Your task to perform on an android device: Go to Android settings Image 0: 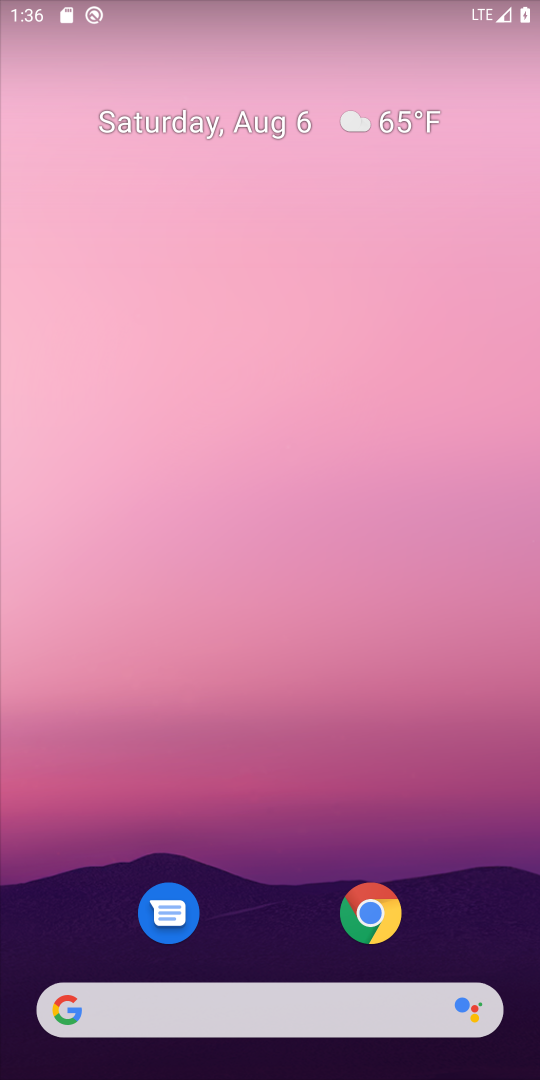
Step 0: press home button
Your task to perform on an android device: Go to Android settings Image 1: 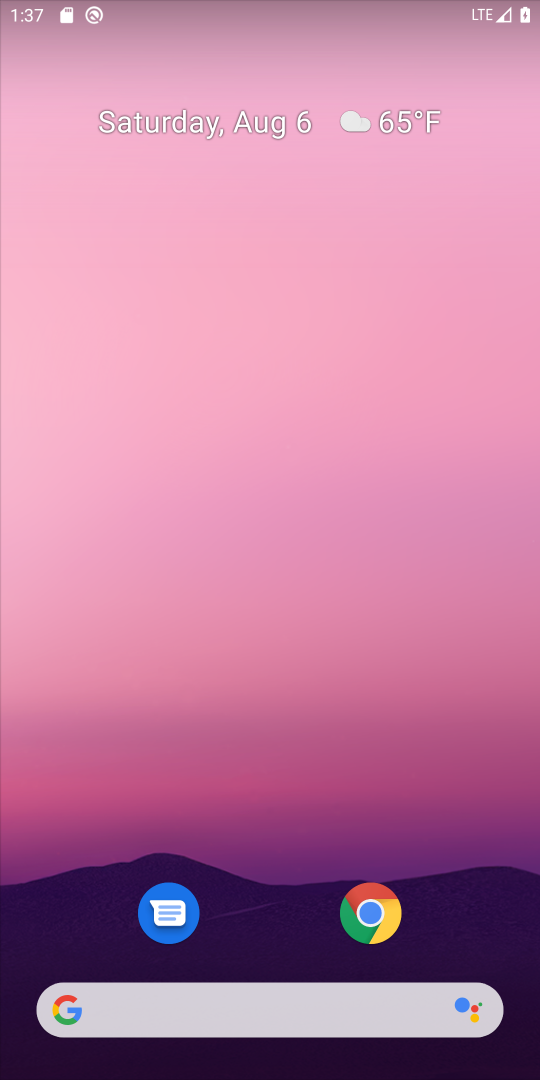
Step 1: drag from (275, 939) to (278, 219)
Your task to perform on an android device: Go to Android settings Image 2: 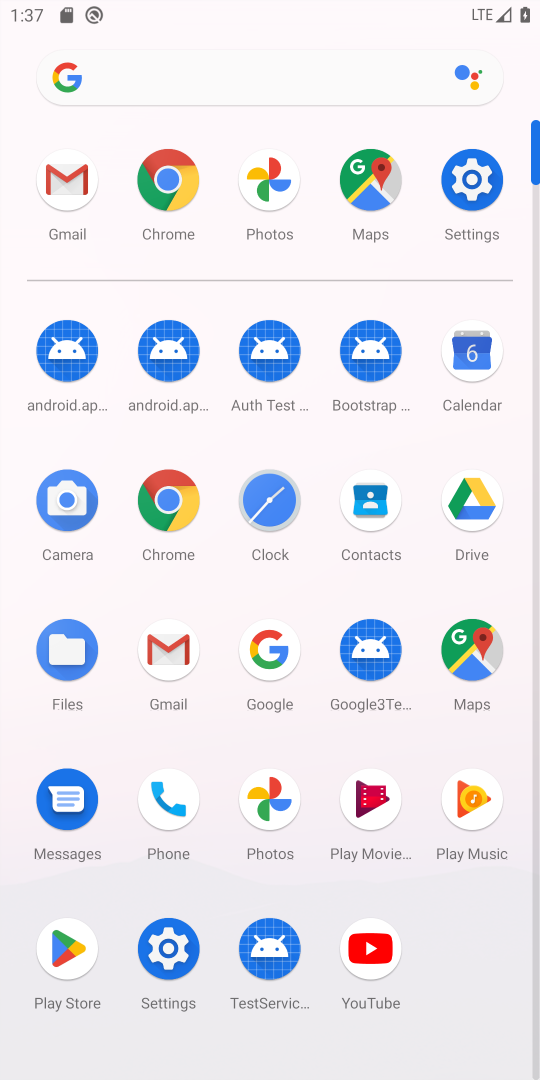
Step 2: click (469, 182)
Your task to perform on an android device: Go to Android settings Image 3: 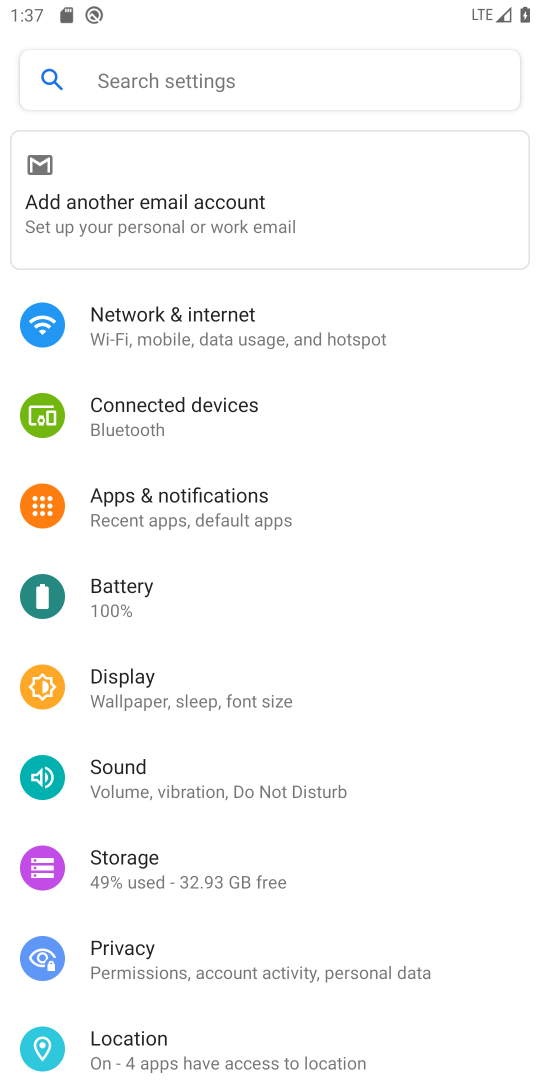
Step 3: drag from (417, 689) to (415, 516)
Your task to perform on an android device: Go to Android settings Image 4: 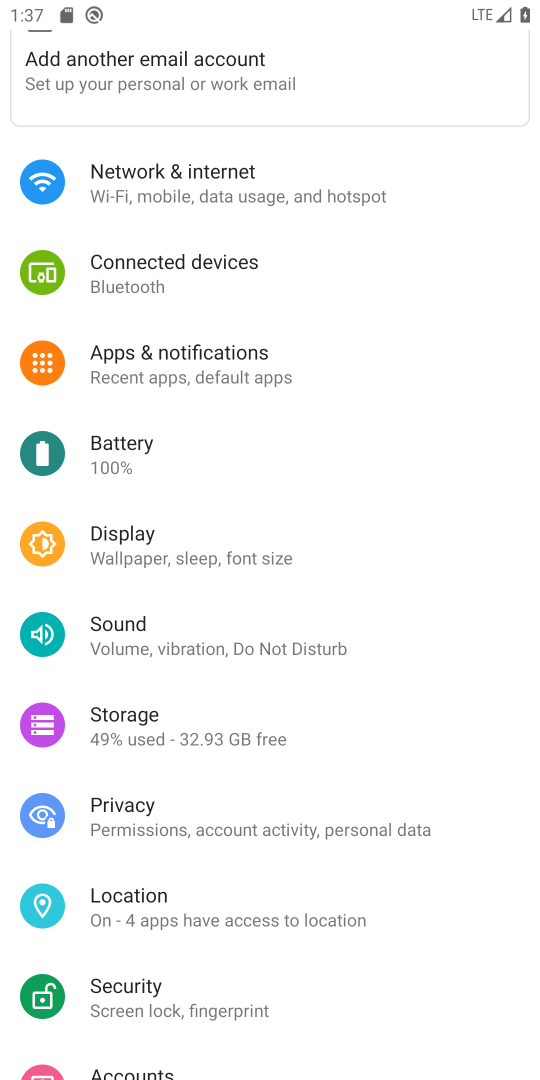
Step 4: drag from (423, 766) to (443, 617)
Your task to perform on an android device: Go to Android settings Image 5: 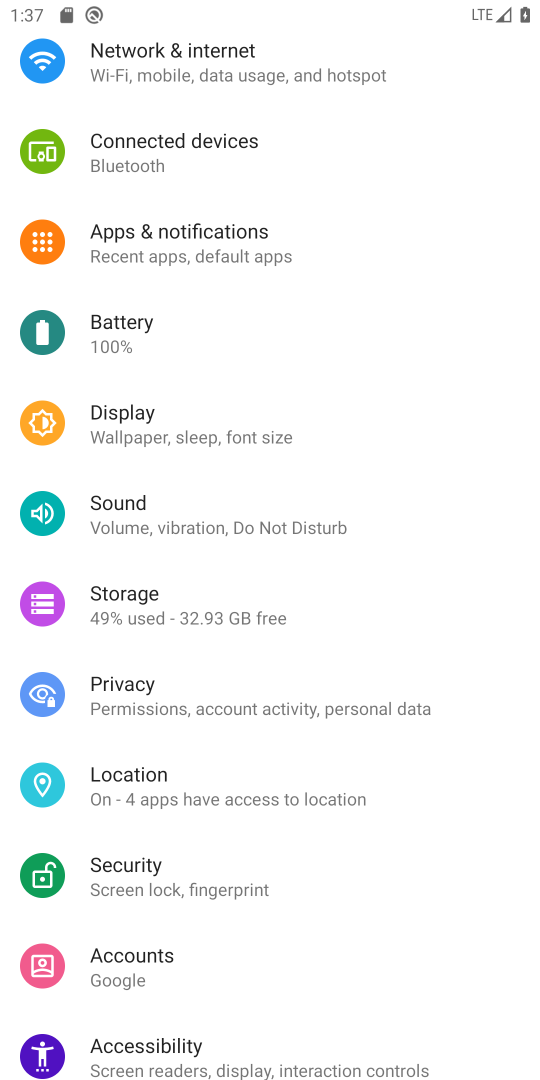
Step 5: drag from (446, 804) to (445, 622)
Your task to perform on an android device: Go to Android settings Image 6: 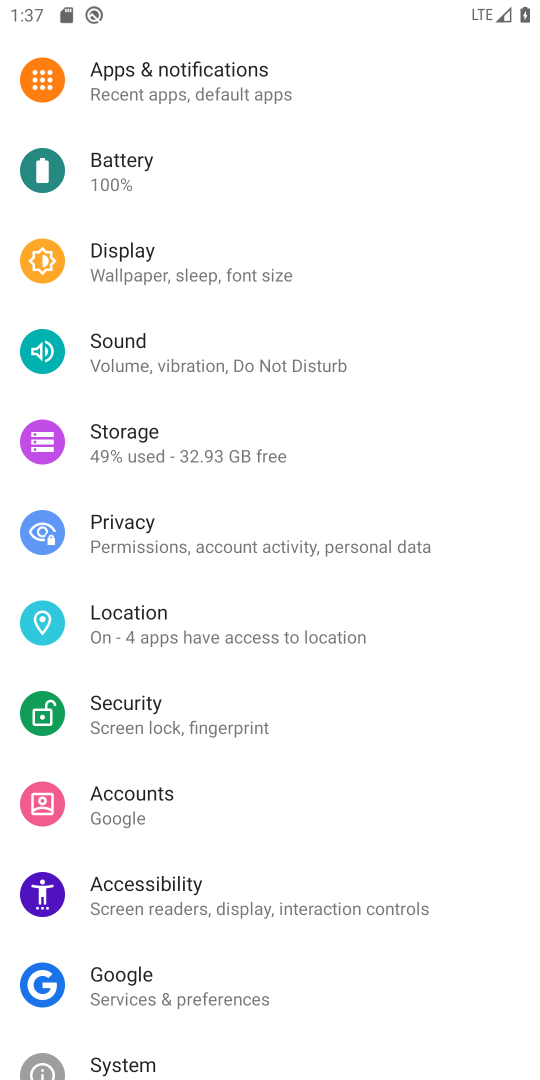
Step 6: drag from (444, 759) to (449, 585)
Your task to perform on an android device: Go to Android settings Image 7: 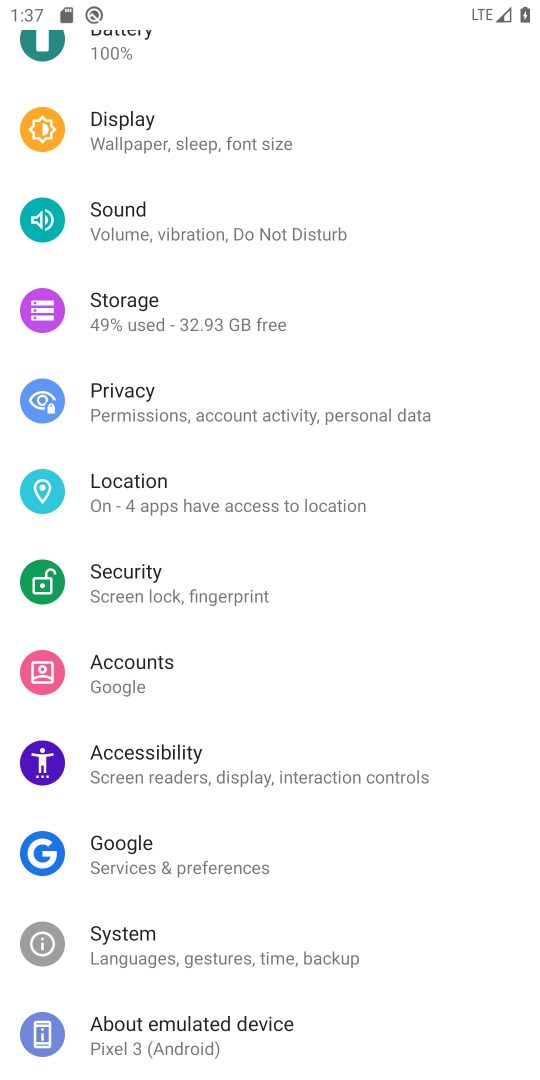
Step 7: drag from (455, 853) to (461, 615)
Your task to perform on an android device: Go to Android settings Image 8: 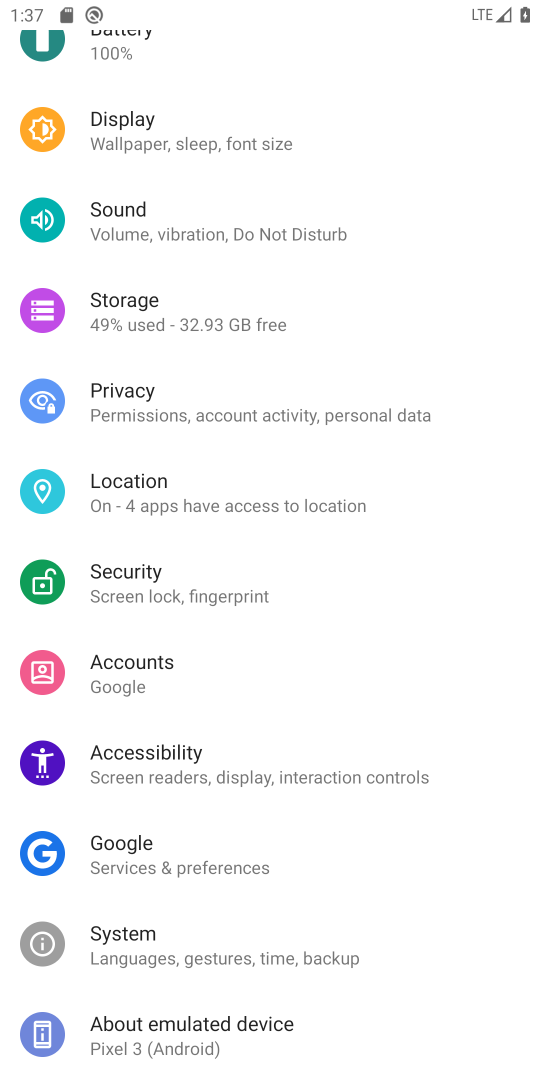
Step 8: click (357, 934)
Your task to perform on an android device: Go to Android settings Image 9: 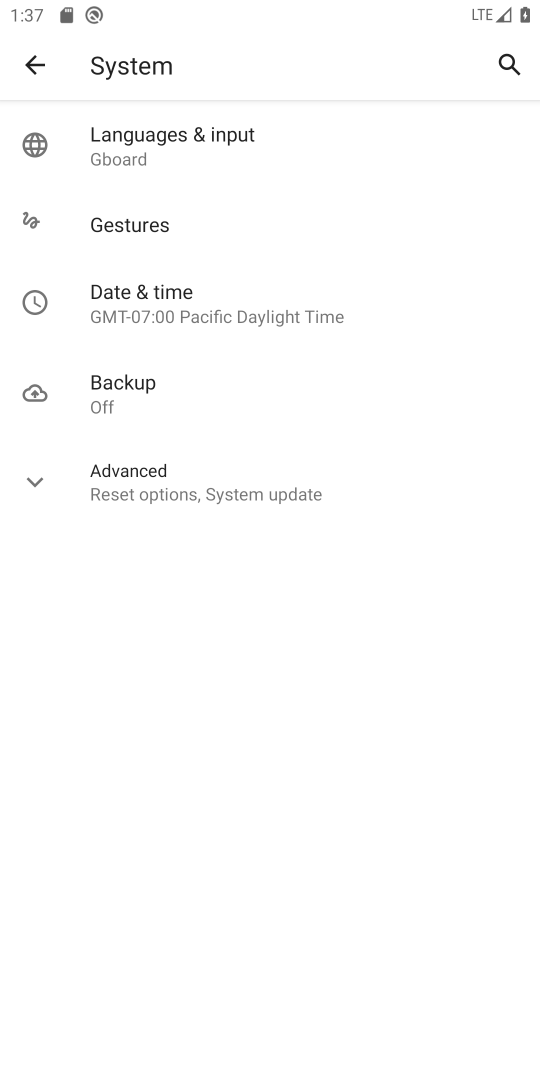
Step 9: click (280, 471)
Your task to perform on an android device: Go to Android settings Image 10: 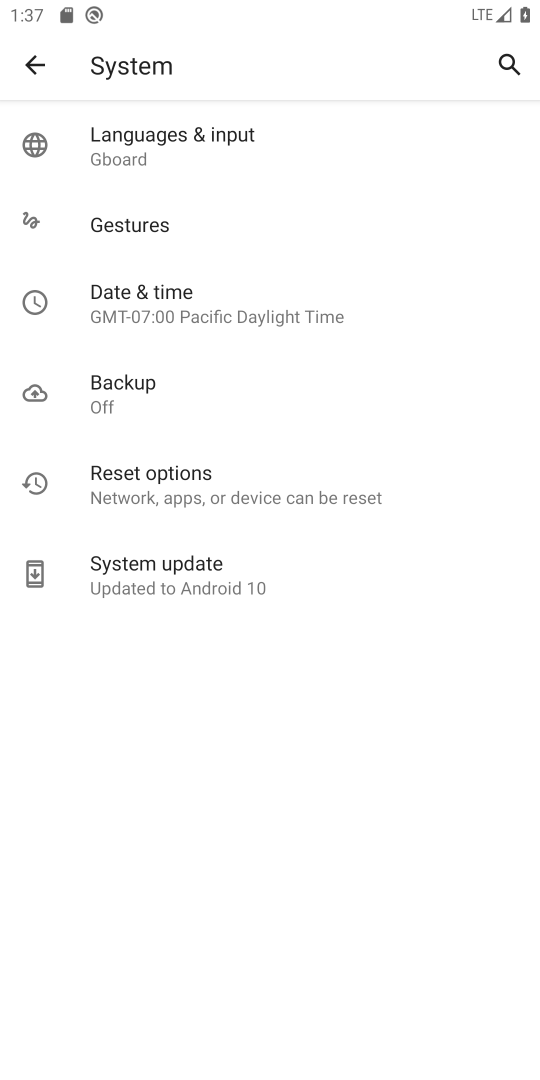
Step 10: task complete